Your task to perform on an android device: Open wifi settings Image 0: 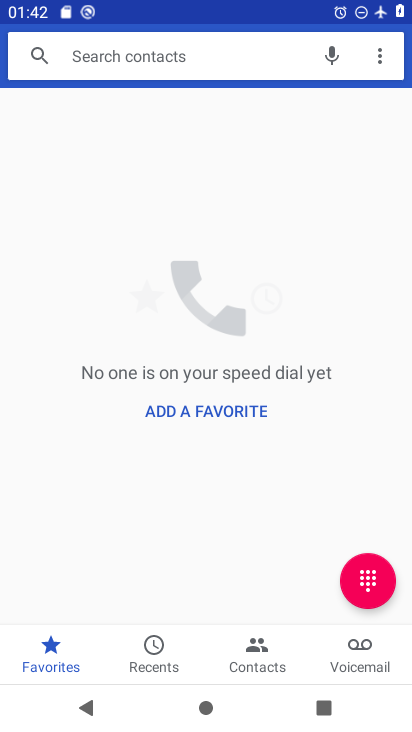
Step 0: click (136, 576)
Your task to perform on an android device: Open wifi settings Image 1: 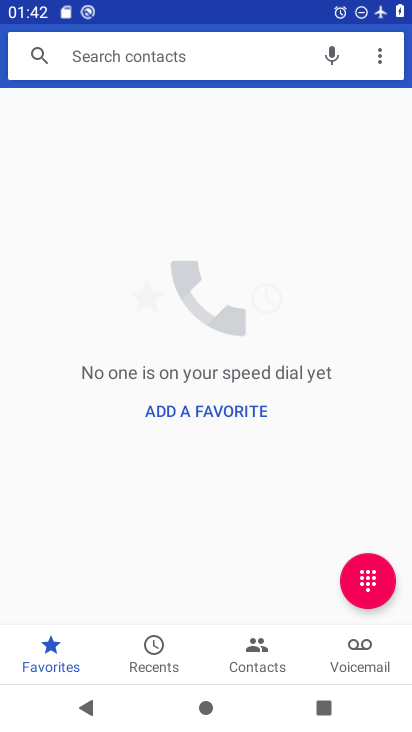
Step 1: click (378, 59)
Your task to perform on an android device: Open wifi settings Image 2: 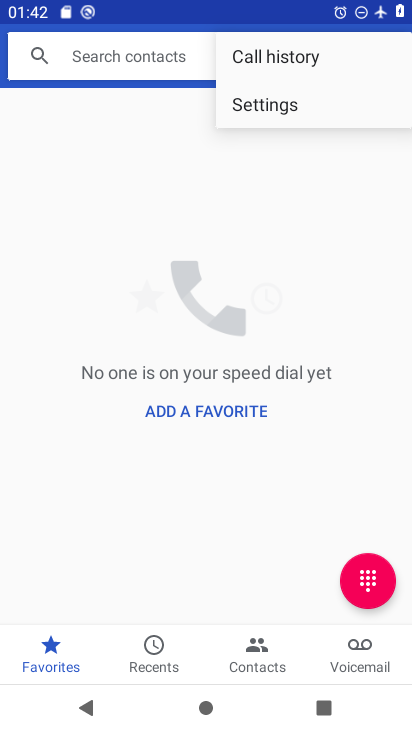
Step 2: click (269, 195)
Your task to perform on an android device: Open wifi settings Image 3: 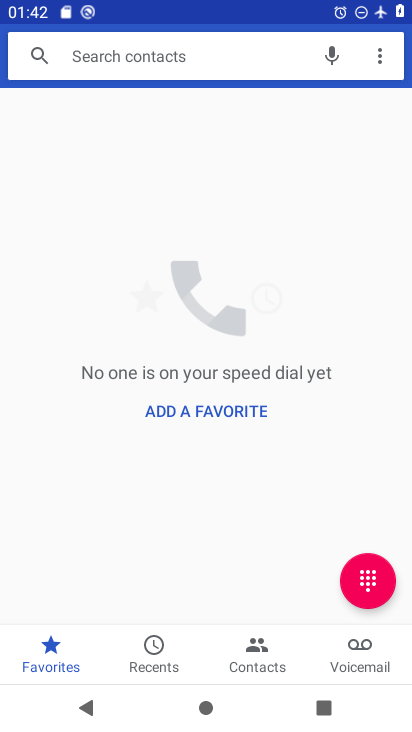
Step 3: press home button
Your task to perform on an android device: Open wifi settings Image 4: 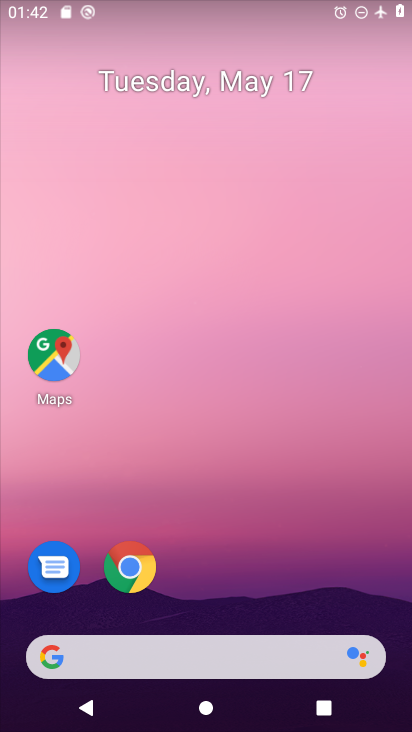
Step 4: drag from (176, 463) to (97, 106)
Your task to perform on an android device: Open wifi settings Image 5: 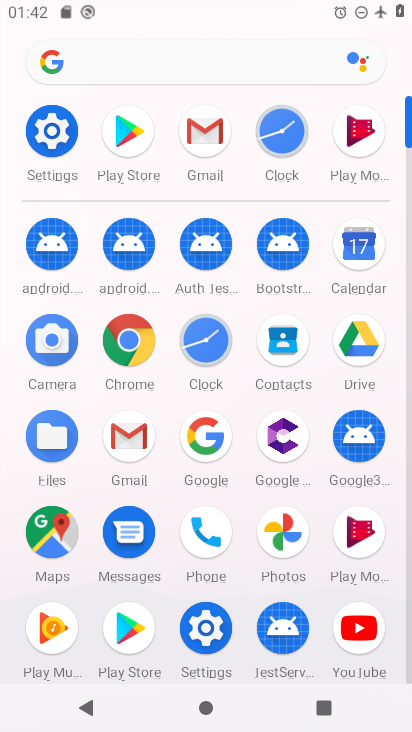
Step 5: click (49, 132)
Your task to perform on an android device: Open wifi settings Image 6: 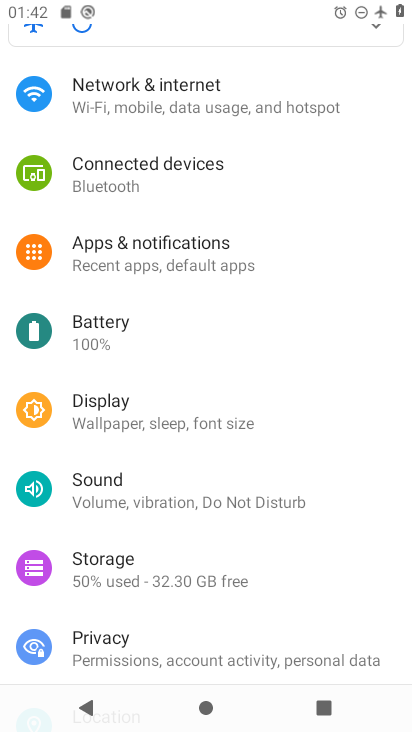
Step 6: click (113, 84)
Your task to perform on an android device: Open wifi settings Image 7: 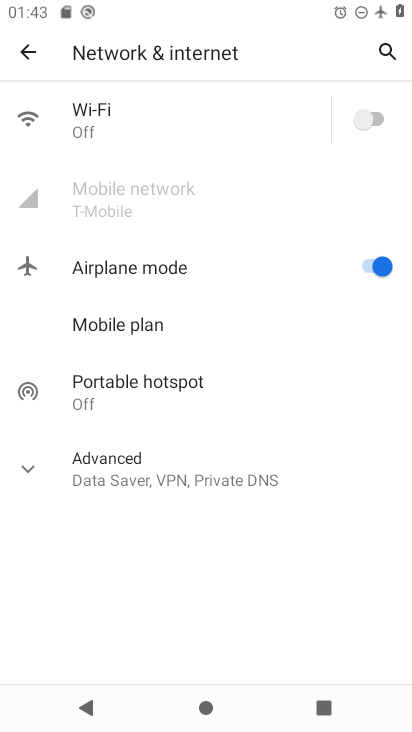
Step 7: click (275, 121)
Your task to perform on an android device: Open wifi settings Image 8: 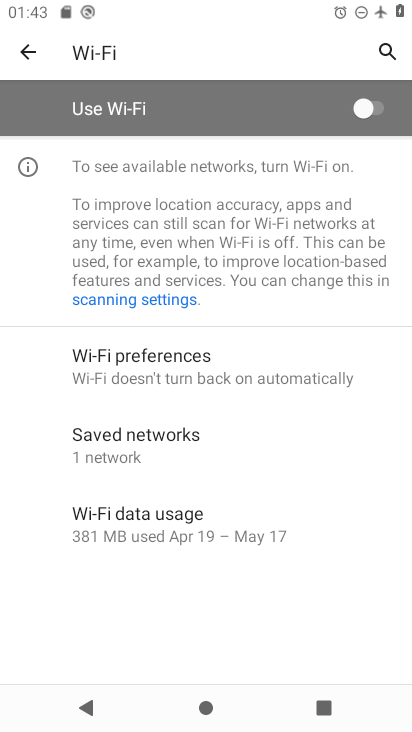
Step 8: task complete